Your task to perform on an android device: toggle improve location accuracy Image 0: 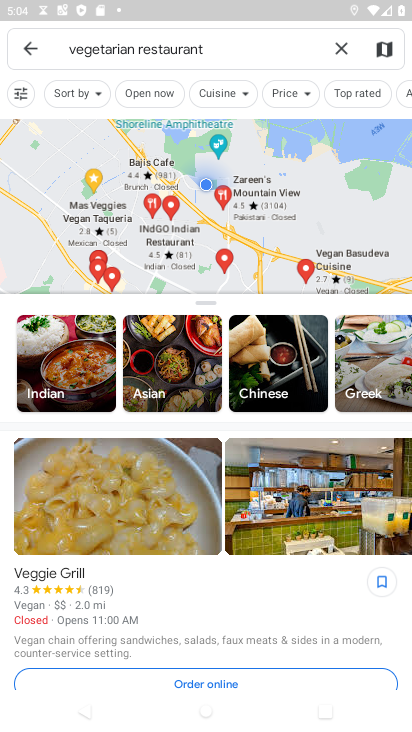
Step 0: press back button
Your task to perform on an android device: toggle improve location accuracy Image 1: 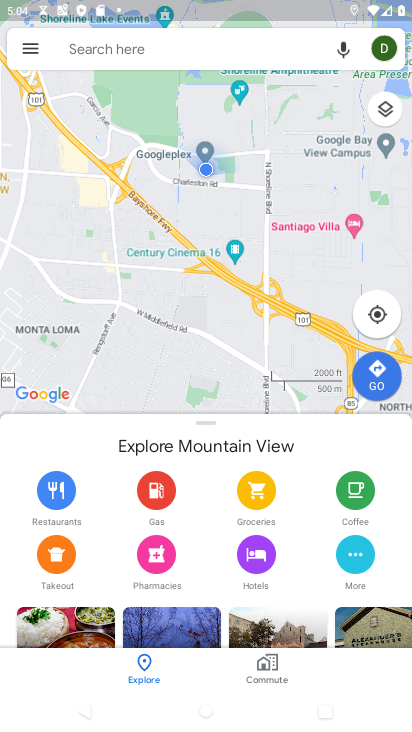
Step 1: press home button
Your task to perform on an android device: toggle improve location accuracy Image 2: 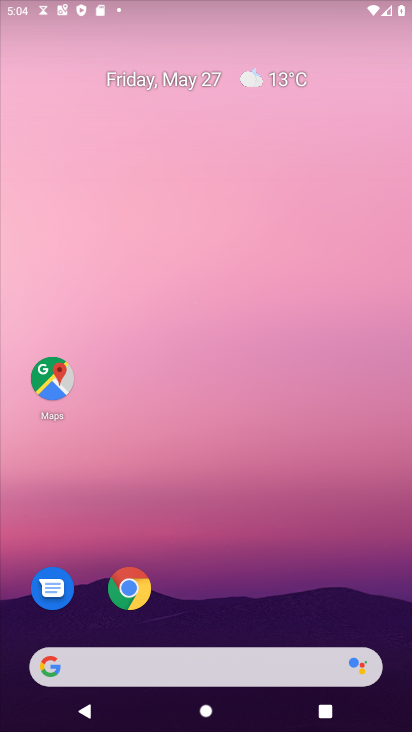
Step 2: drag from (188, 590) to (309, 131)
Your task to perform on an android device: toggle improve location accuracy Image 3: 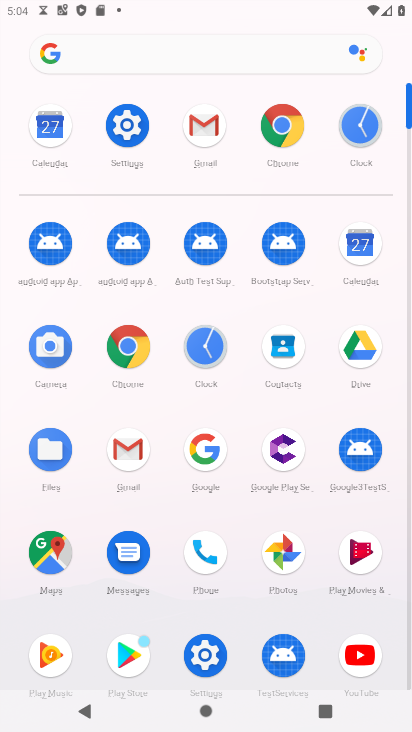
Step 3: click (133, 126)
Your task to perform on an android device: toggle improve location accuracy Image 4: 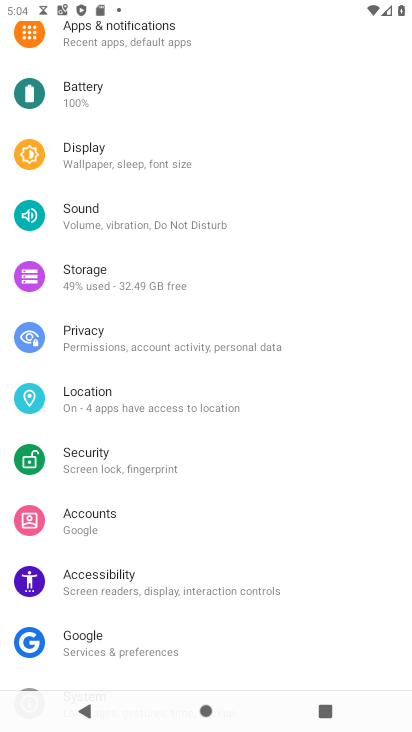
Step 4: click (100, 390)
Your task to perform on an android device: toggle improve location accuracy Image 5: 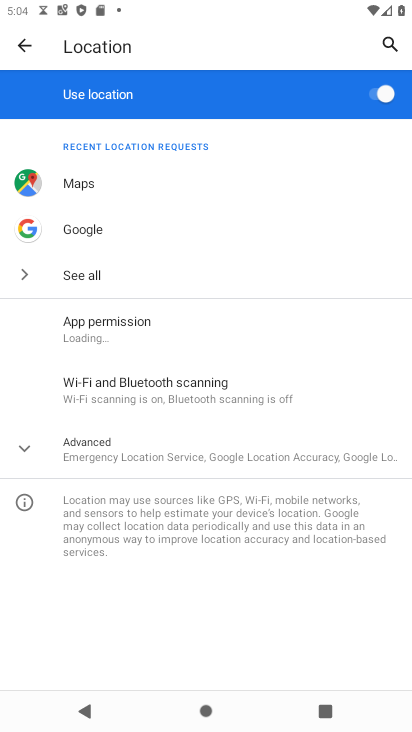
Step 5: click (121, 453)
Your task to perform on an android device: toggle improve location accuracy Image 6: 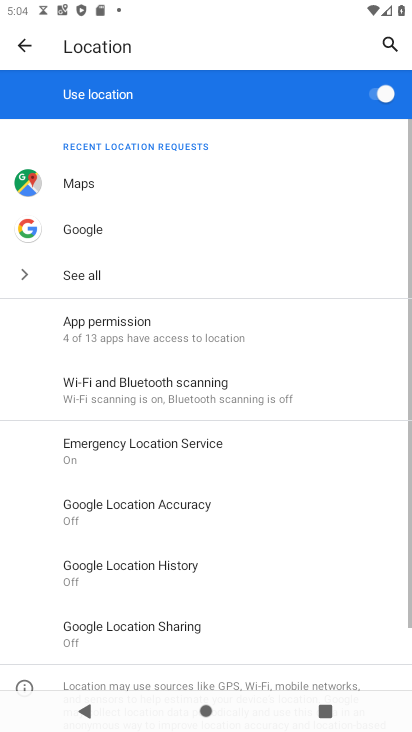
Step 6: click (131, 516)
Your task to perform on an android device: toggle improve location accuracy Image 7: 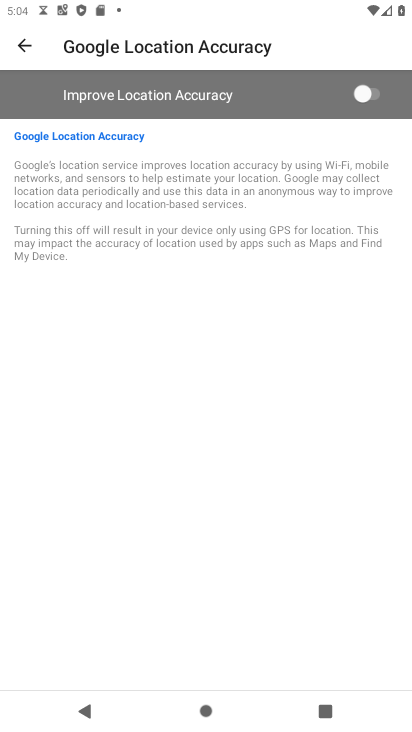
Step 7: click (368, 93)
Your task to perform on an android device: toggle improve location accuracy Image 8: 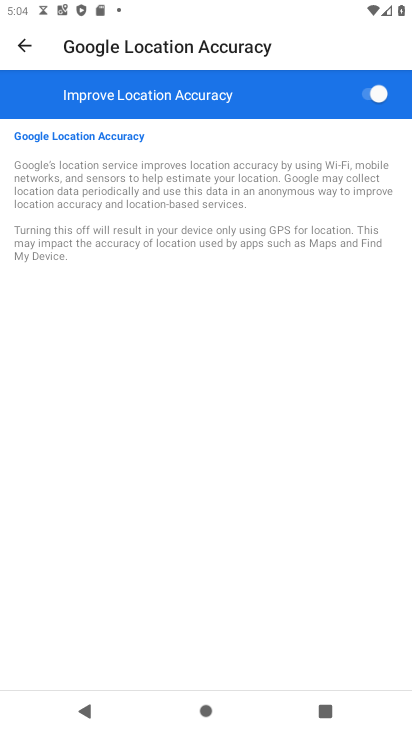
Step 8: task complete